Your task to perform on an android device: Go to Reddit.com Image 0: 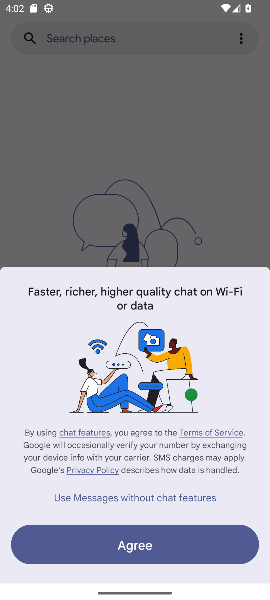
Step 0: click (139, 152)
Your task to perform on an android device: Go to Reddit.com Image 1: 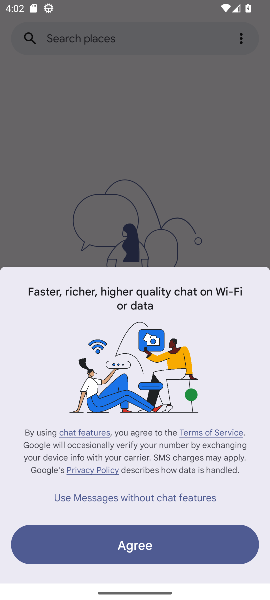
Step 1: press back button
Your task to perform on an android device: Go to Reddit.com Image 2: 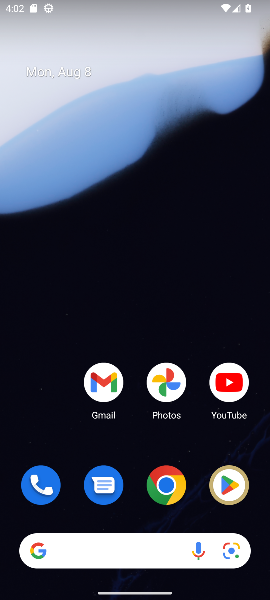
Step 2: drag from (144, 499) to (110, 153)
Your task to perform on an android device: Go to Reddit.com Image 3: 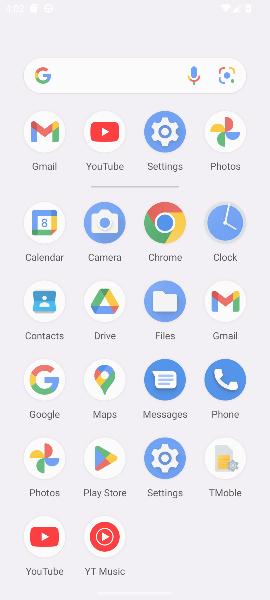
Step 3: drag from (130, 487) to (96, 175)
Your task to perform on an android device: Go to Reddit.com Image 4: 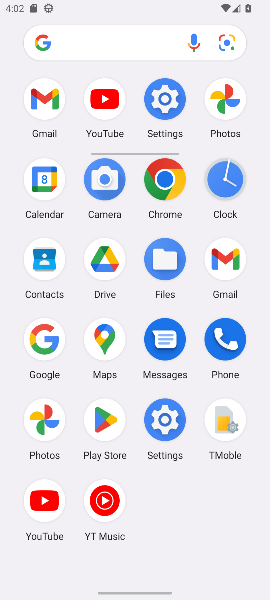
Step 4: drag from (138, 462) to (138, 152)
Your task to perform on an android device: Go to Reddit.com Image 5: 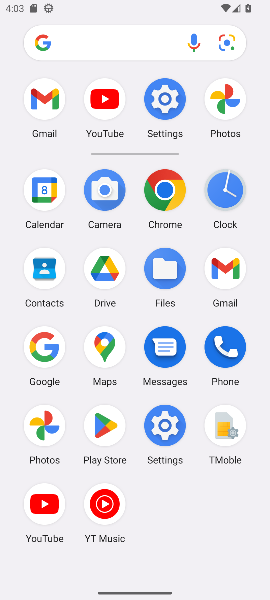
Step 5: click (171, 189)
Your task to perform on an android device: Go to Reddit.com Image 6: 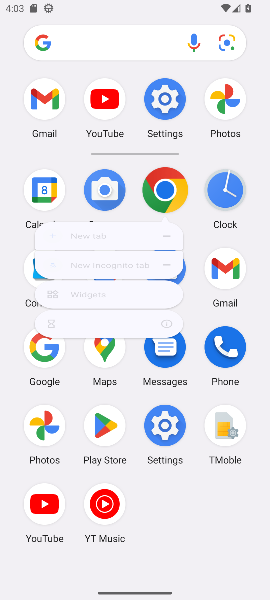
Step 6: click (165, 192)
Your task to perform on an android device: Go to Reddit.com Image 7: 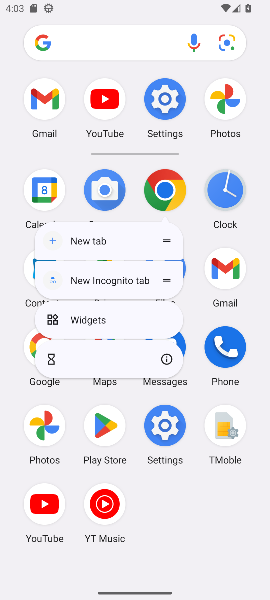
Step 7: click (162, 194)
Your task to perform on an android device: Go to Reddit.com Image 8: 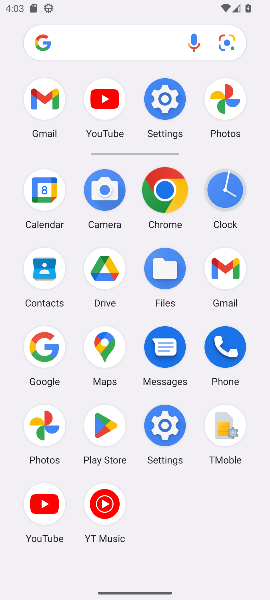
Step 8: click (163, 195)
Your task to perform on an android device: Go to Reddit.com Image 9: 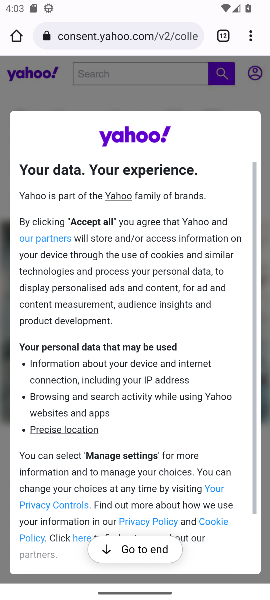
Step 9: click (164, 195)
Your task to perform on an android device: Go to Reddit.com Image 10: 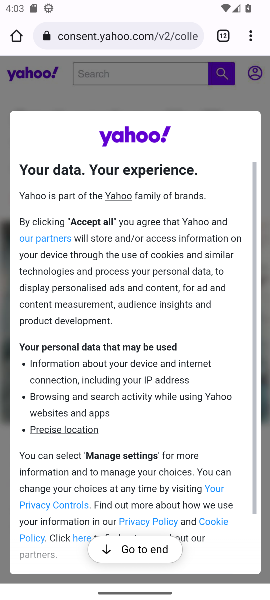
Step 10: click (252, 34)
Your task to perform on an android device: Go to Reddit.com Image 11: 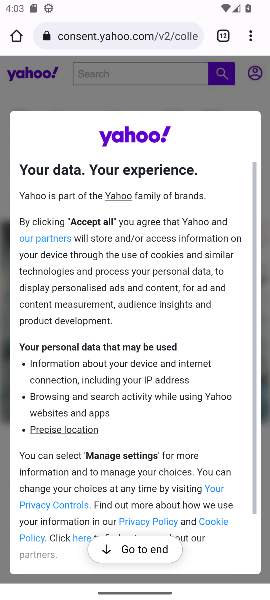
Step 11: click (248, 31)
Your task to perform on an android device: Go to Reddit.com Image 12: 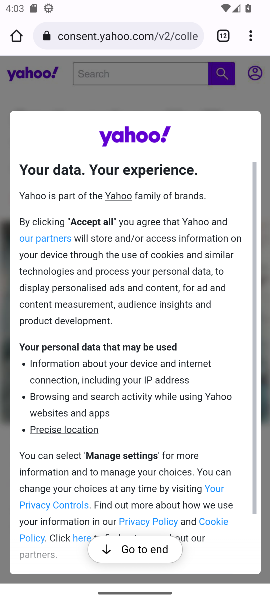
Step 12: drag from (250, 34) to (136, 70)
Your task to perform on an android device: Go to Reddit.com Image 13: 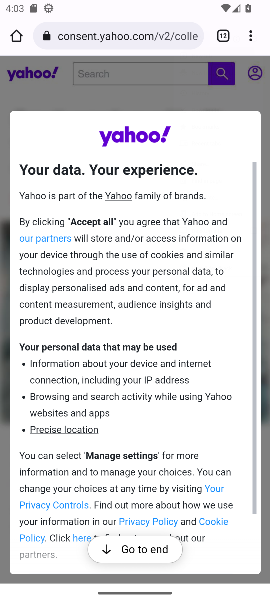
Step 13: click (136, 70)
Your task to perform on an android device: Go to Reddit.com Image 14: 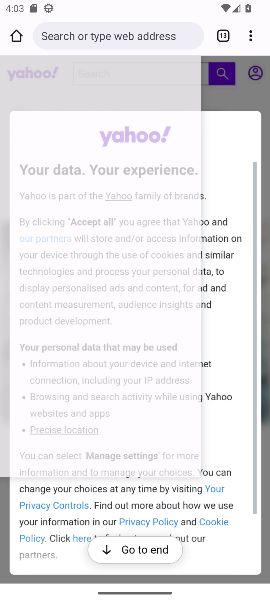
Step 14: click (139, 68)
Your task to perform on an android device: Go to Reddit.com Image 15: 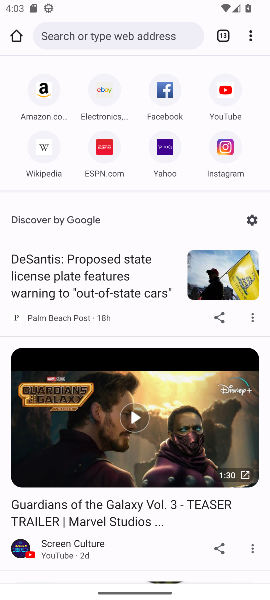
Step 15: click (55, 29)
Your task to perform on an android device: Go to Reddit.com Image 16: 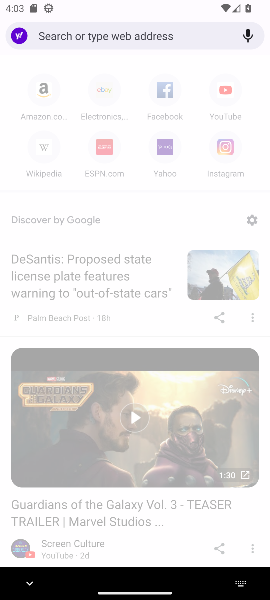
Step 16: type "reddit.com"
Your task to perform on an android device: Go to Reddit.com Image 17: 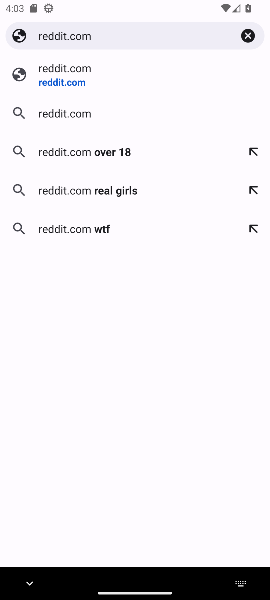
Step 17: click (53, 83)
Your task to perform on an android device: Go to Reddit.com Image 18: 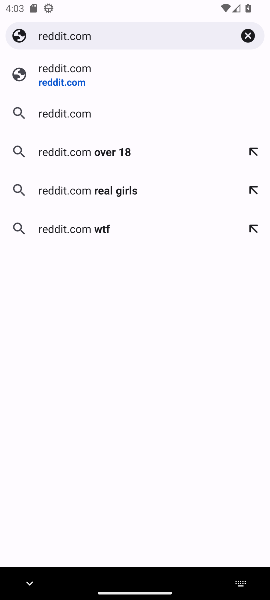
Step 18: click (53, 83)
Your task to perform on an android device: Go to Reddit.com Image 19: 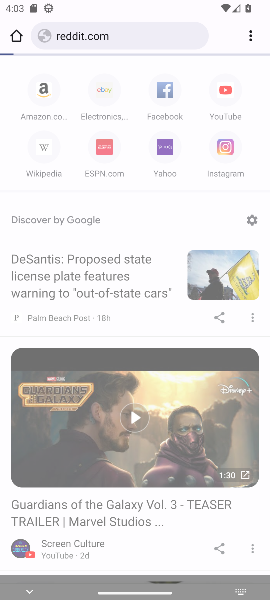
Step 19: click (53, 83)
Your task to perform on an android device: Go to Reddit.com Image 20: 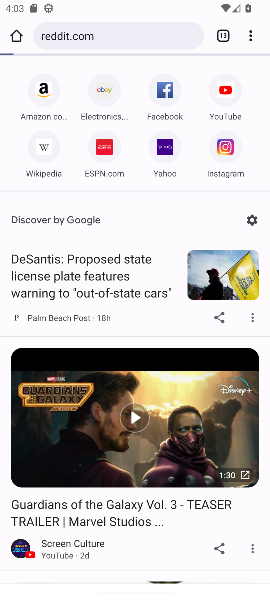
Step 20: click (57, 83)
Your task to perform on an android device: Go to Reddit.com Image 21: 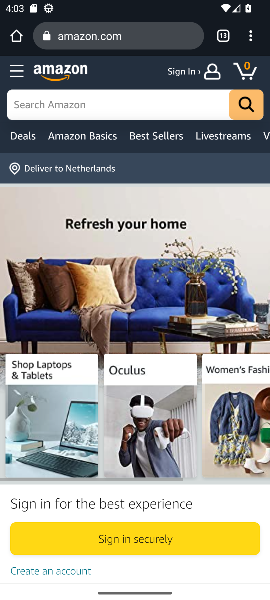
Step 21: task complete